Your task to perform on an android device: Search for pizza restaurants on Maps Image 0: 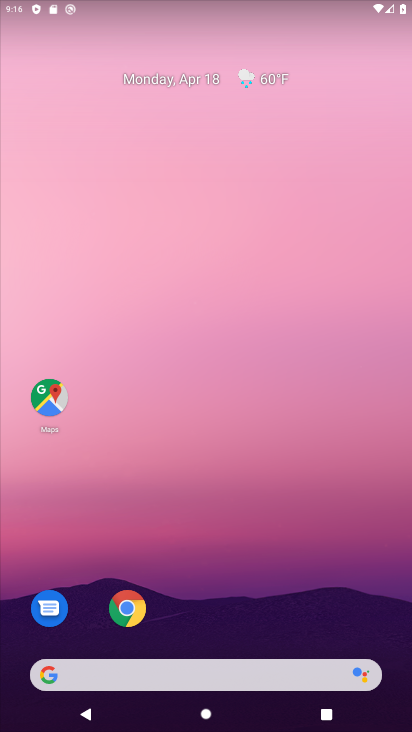
Step 0: click (48, 390)
Your task to perform on an android device: Search for pizza restaurants on Maps Image 1: 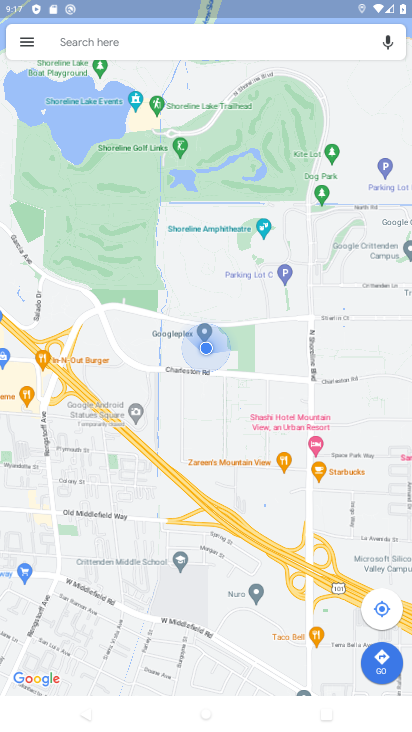
Step 1: click (108, 40)
Your task to perform on an android device: Search for pizza restaurants on Maps Image 2: 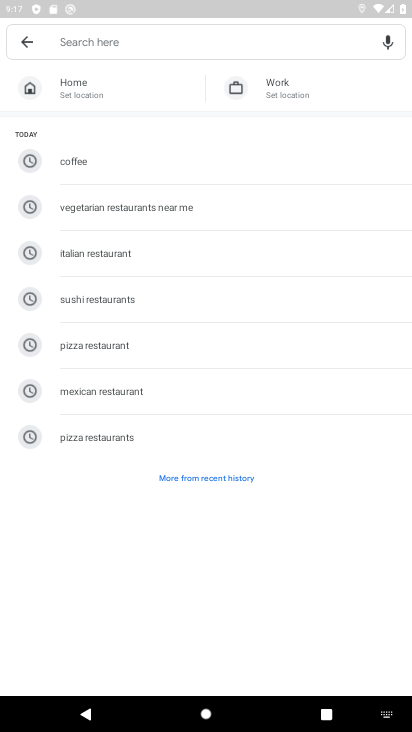
Step 2: type " pizza restaurants"
Your task to perform on an android device: Search for pizza restaurants on Maps Image 3: 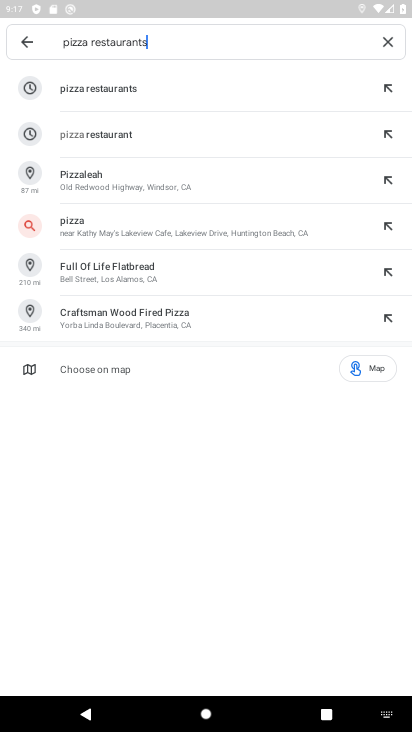
Step 3: click (73, 83)
Your task to perform on an android device: Search for pizza restaurants on Maps Image 4: 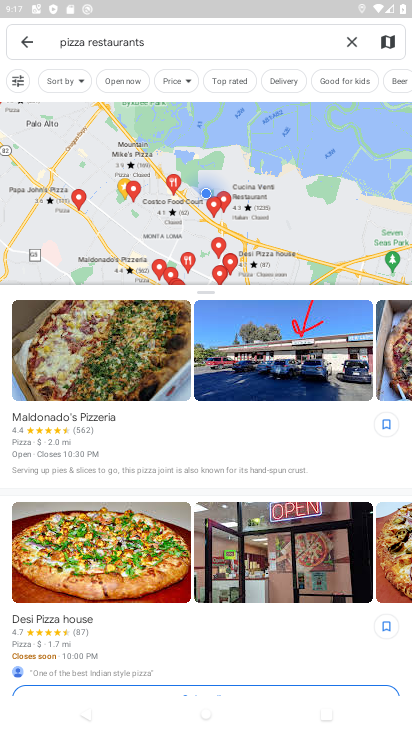
Step 4: task complete